Your task to perform on an android device: Go to CNN.com Image 0: 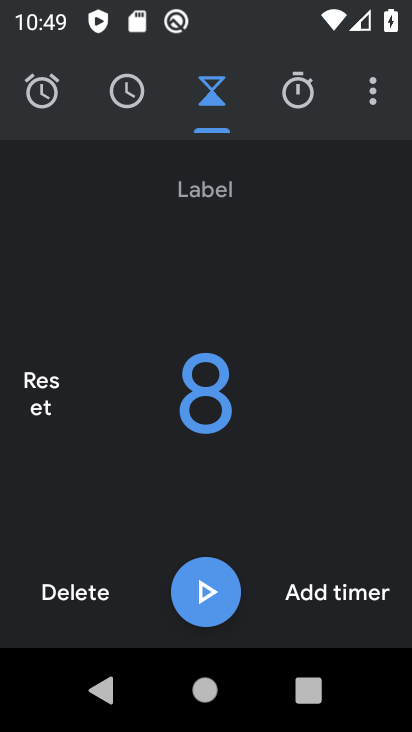
Step 0: press home button
Your task to perform on an android device: Go to CNN.com Image 1: 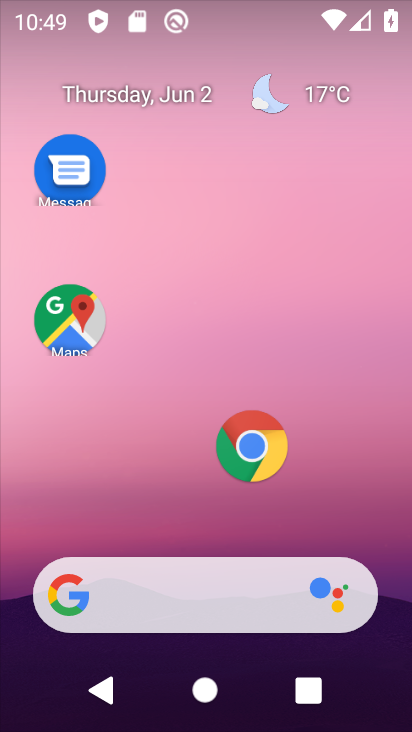
Step 1: click (232, 449)
Your task to perform on an android device: Go to CNN.com Image 2: 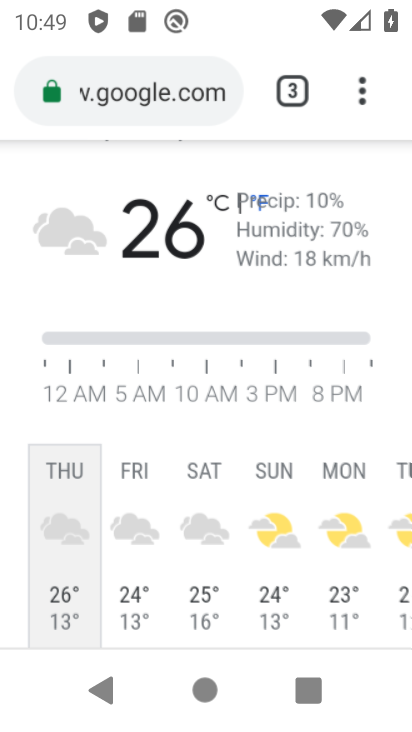
Step 2: click (168, 98)
Your task to perform on an android device: Go to CNN.com Image 3: 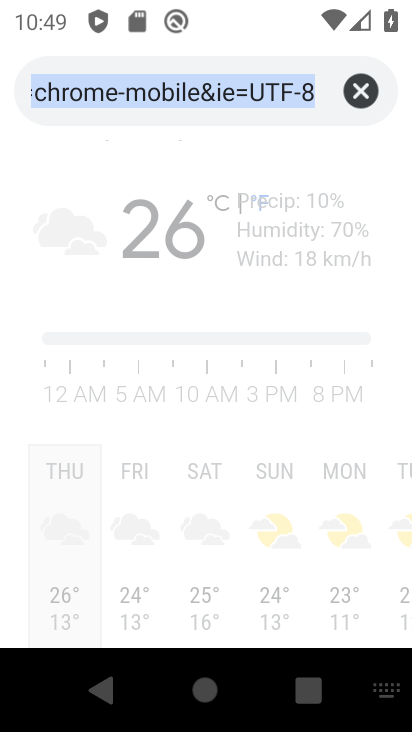
Step 3: type "CNN.com"
Your task to perform on an android device: Go to CNN.com Image 4: 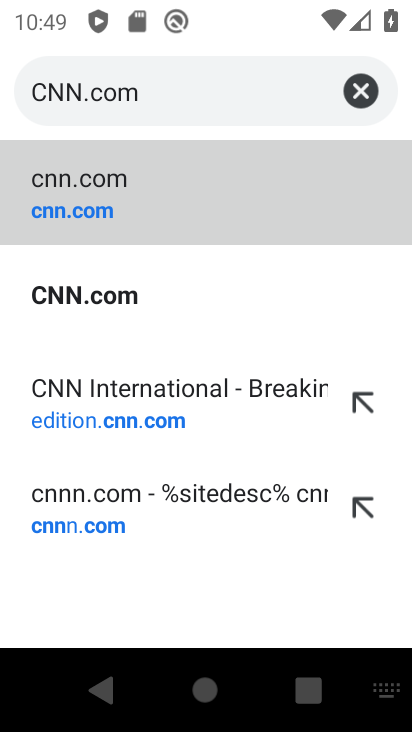
Step 4: click (176, 178)
Your task to perform on an android device: Go to CNN.com Image 5: 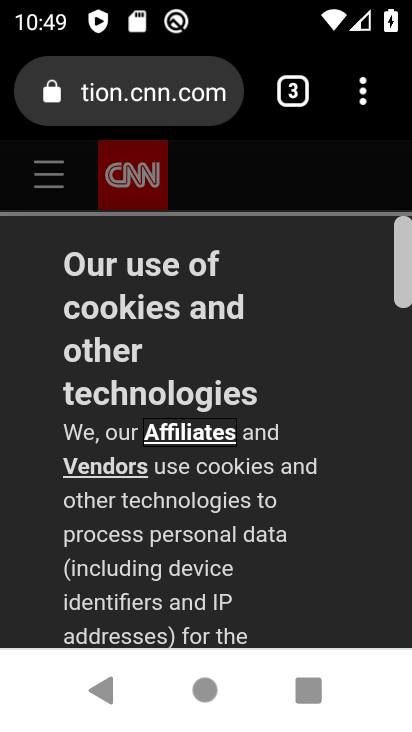
Step 5: task complete